Your task to perform on an android device: turn on airplane mode Image 0: 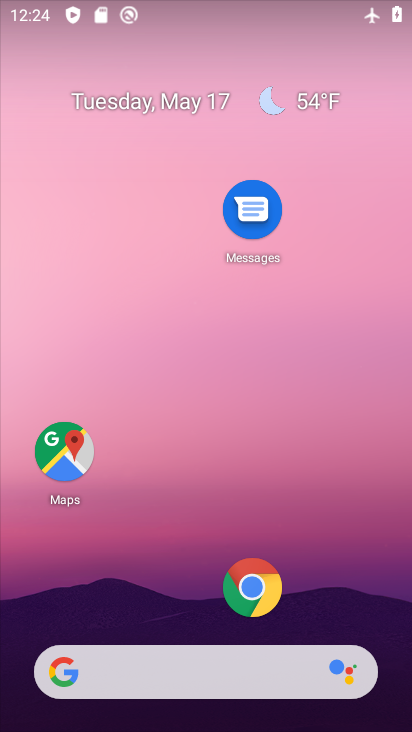
Step 0: drag from (192, 599) to (231, 76)
Your task to perform on an android device: turn on airplane mode Image 1: 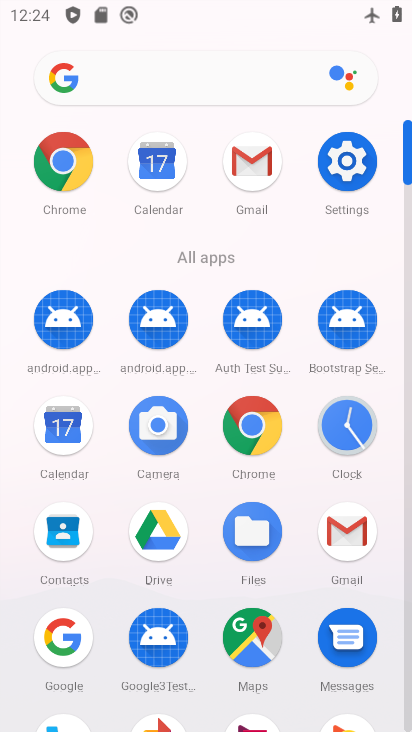
Step 1: click (340, 173)
Your task to perform on an android device: turn on airplane mode Image 2: 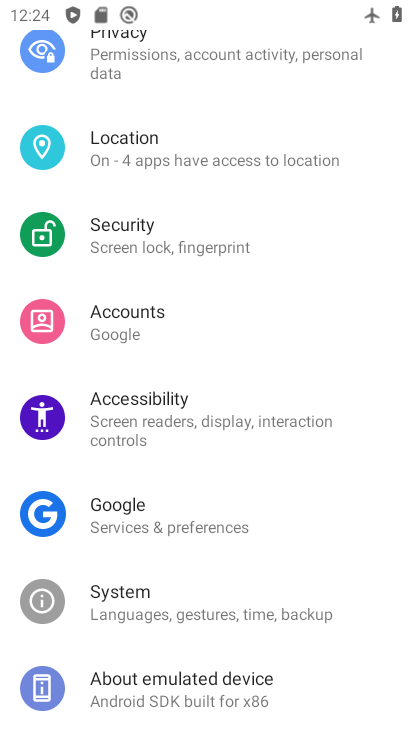
Step 2: drag from (256, 199) to (205, 613)
Your task to perform on an android device: turn on airplane mode Image 3: 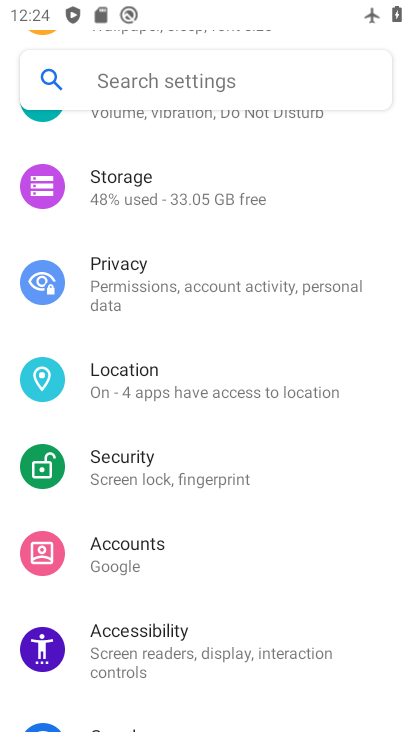
Step 3: drag from (242, 200) to (241, 637)
Your task to perform on an android device: turn on airplane mode Image 4: 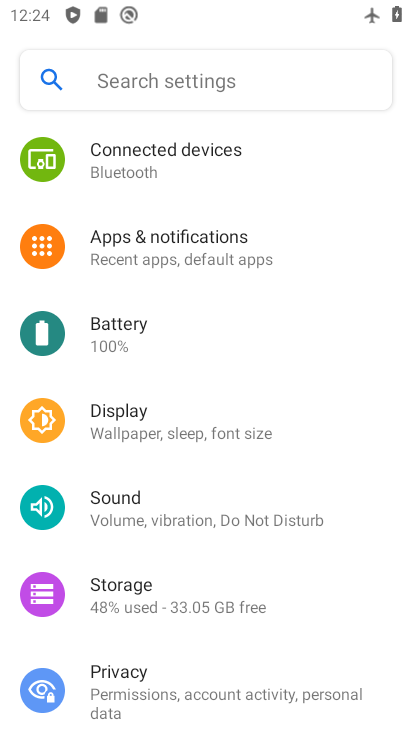
Step 4: drag from (198, 252) to (192, 656)
Your task to perform on an android device: turn on airplane mode Image 5: 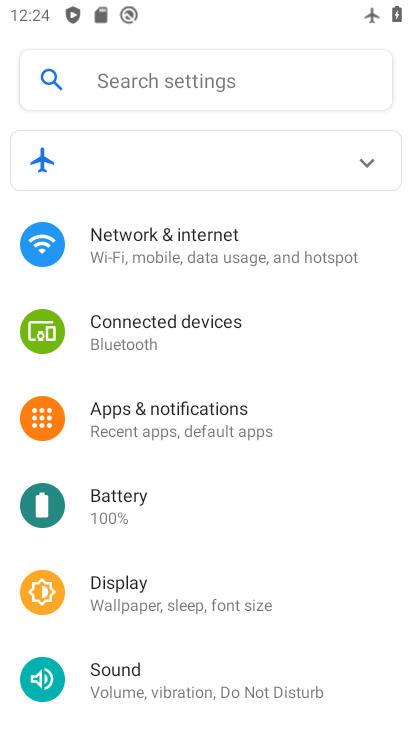
Step 5: click (190, 250)
Your task to perform on an android device: turn on airplane mode Image 6: 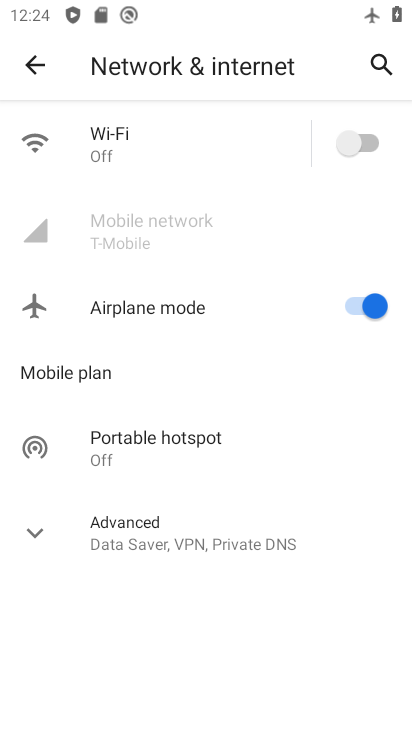
Step 6: task complete